Your task to perform on an android device: What is the news today? Image 0: 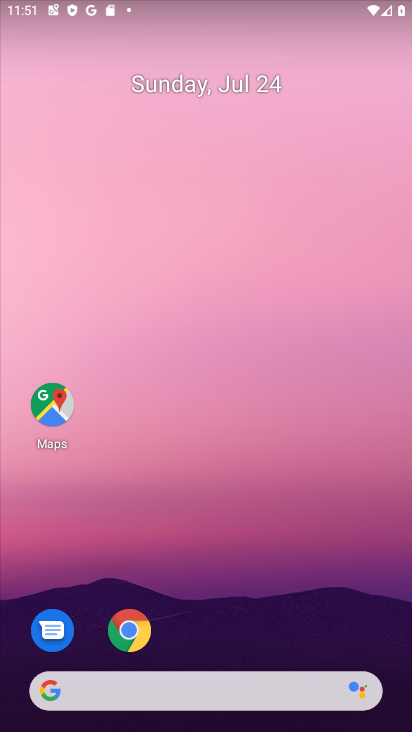
Step 0: press home button
Your task to perform on an android device: What is the news today? Image 1: 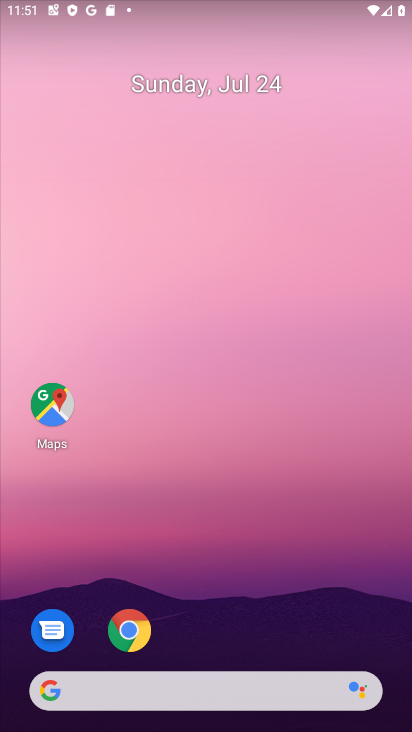
Step 1: click (130, 638)
Your task to perform on an android device: What is the news today? Image 2: 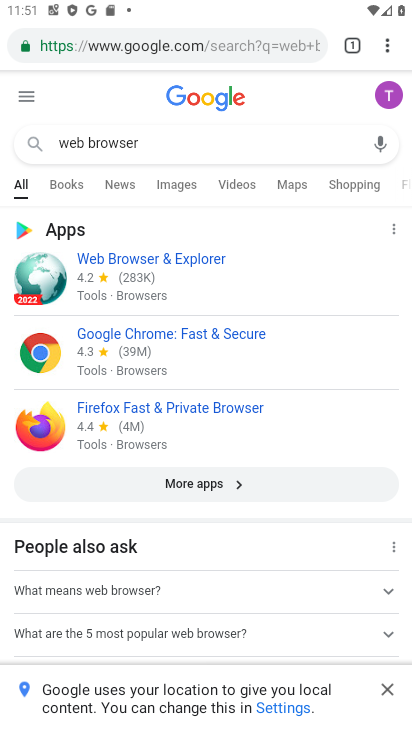
Step 2: click (249, 50)
Your task to perform on an android device: What is the news today? Image 3: 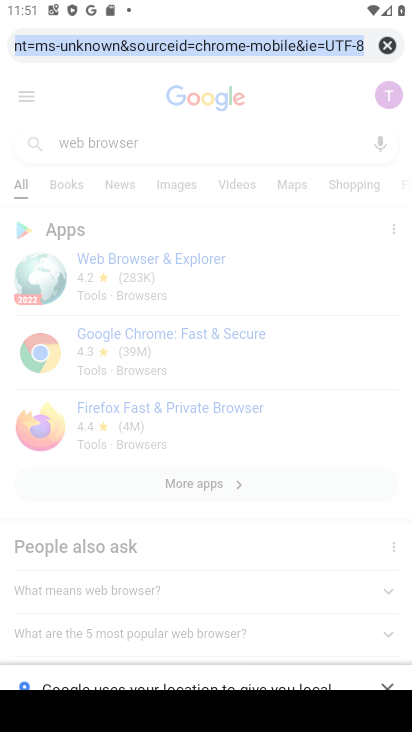
Step 3: type "What is the news today?"
Your task to perform on an android device: What is the news today? Image 4: 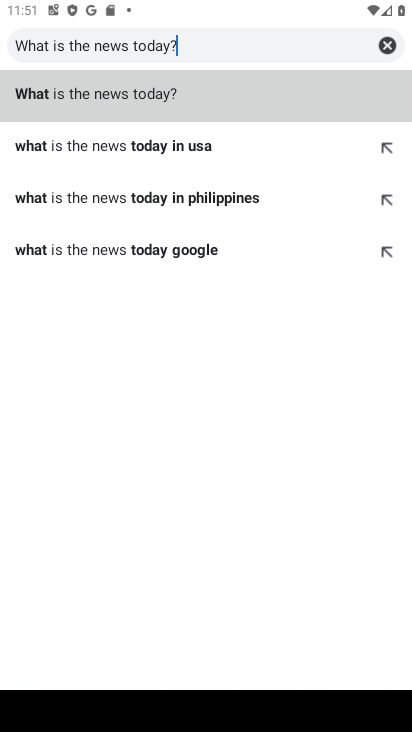
Step 4: type ""
Your task to perform on an android device: What is the news today? Image 5: 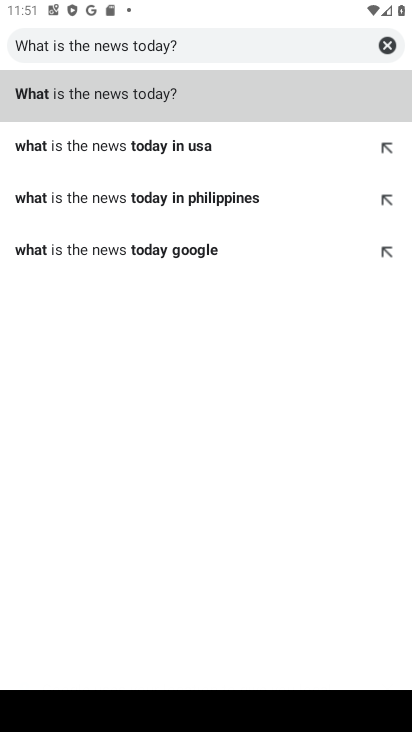
Step 5: click (184, 100)
Your task to perform on an android device: What is the news today? Image 6: 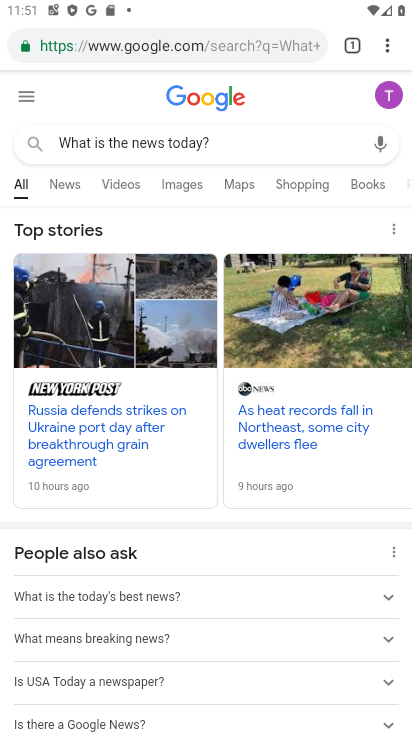
Step 6: task complete